Your task to perform on an android device: open app "Google Duo" Image 0: 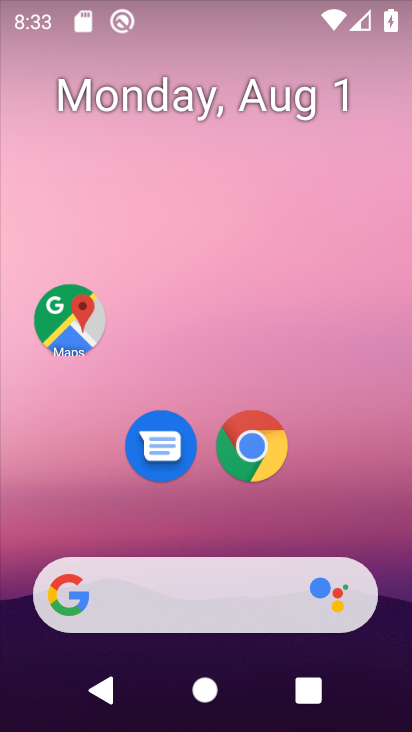
Step 0: drag from (196, 506) to (218, 27)
Your task to perform on an android device: open app "Google Duo" Image 1: 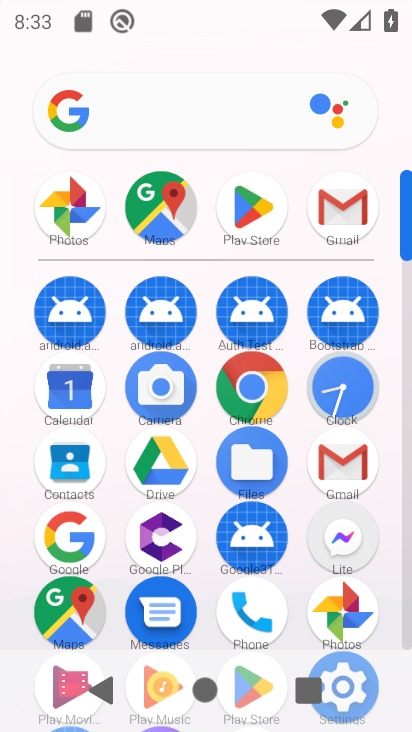
Step 1: click (260, 184)
Your task to perform on an android device: open app "Google Duo" Image 2: 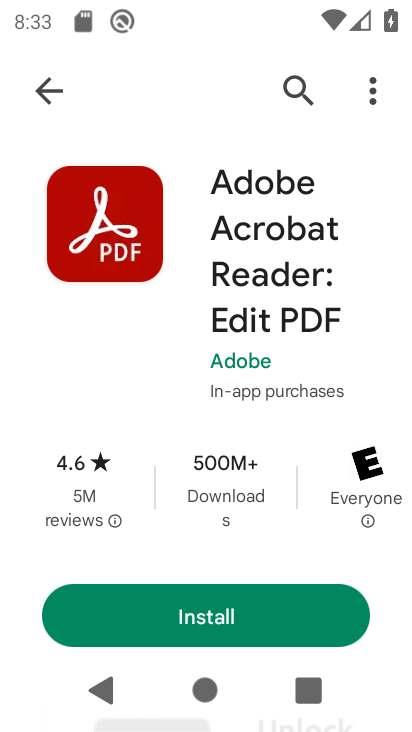
Step 2: click (283, 92)
Your task to perform on an android device: open app "Google Duo" Image 3: 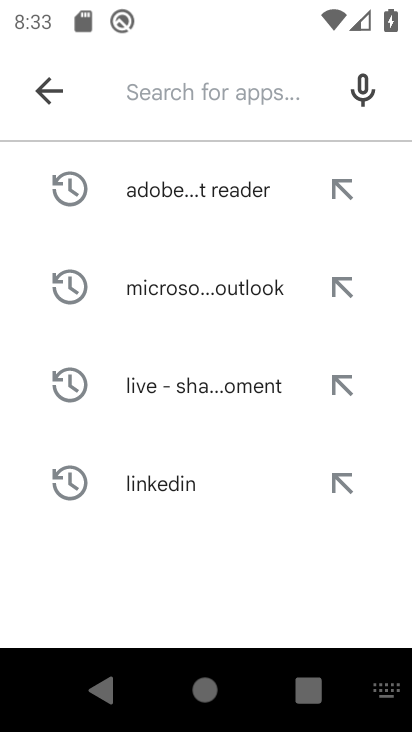
Step 3: type "Google Duo"
Your task to perform on an android device: open app "Google Duo" Image 4: 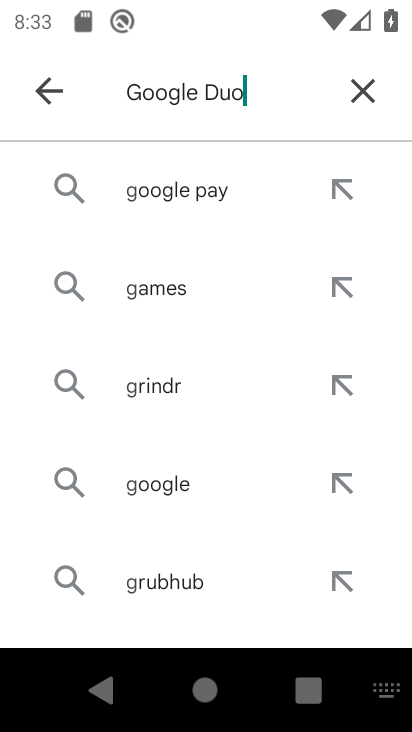
Step 4: type ""
Your task to perform on an android device: open app "Google Duo" Image 5: 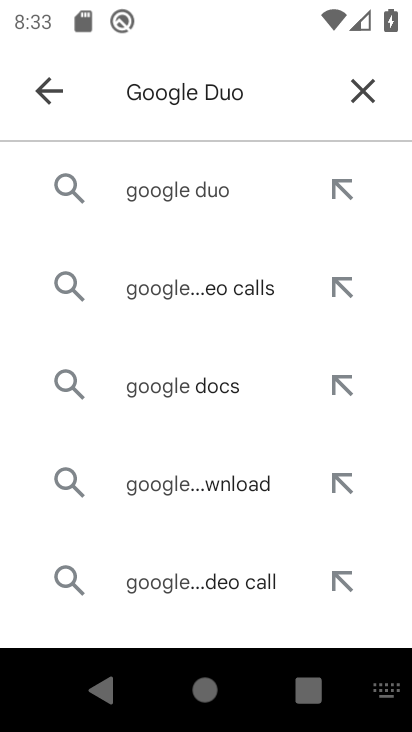
Step 5: click (204, 176)
Your task to perform on an android device: open app "Google Duo" Image 6: 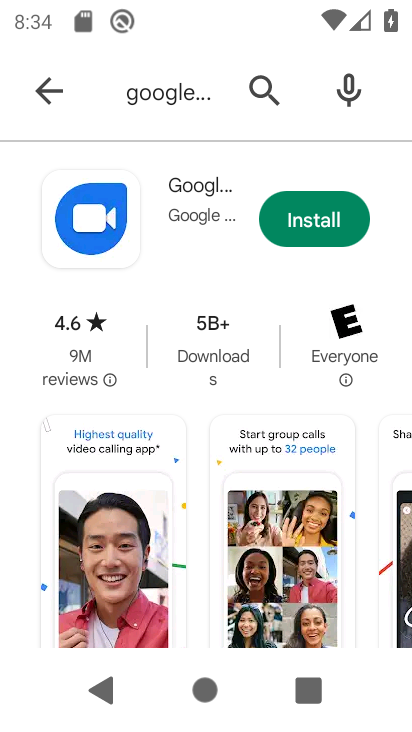
Step 6: task complete